Your task to perform on an android device: toggle data saver in the chrome app Image 0: 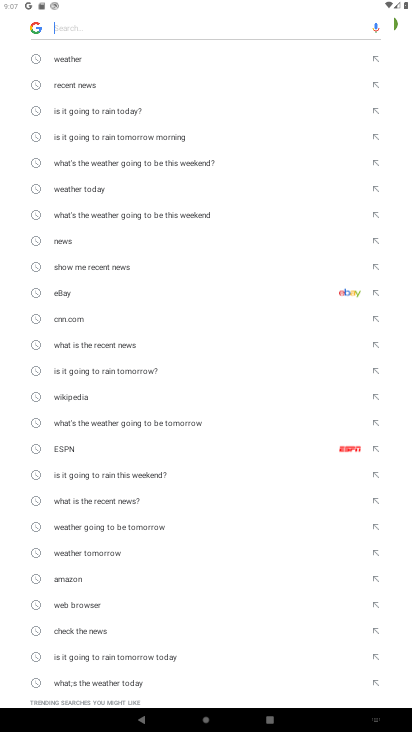
Step 0: press home button
Your task to perform on an android device: toggle data saver in the chrome app Image 1: 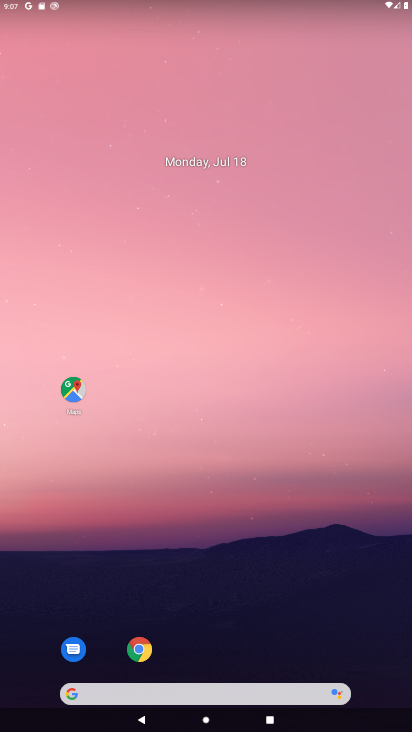
Step 1: click (140, 648)
Your task to perform on an android device: toggle data saver in the chrome app Image 2: 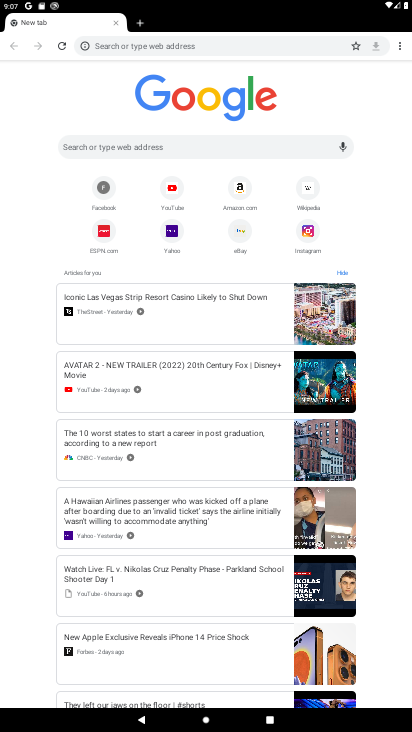
Step 2: click (393, 46)
Your task to perform on an android device: toggle data saver in the chrome app Image 3: 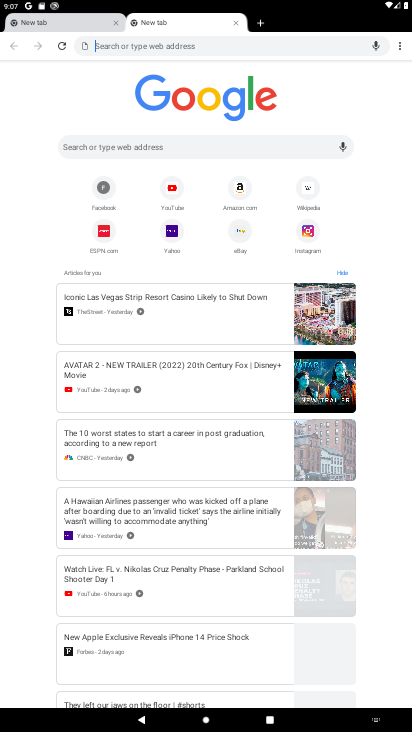
Step 3: click (405, 46)
Your task to perform on an android device: toggle data saver in the chrome app Image 4: 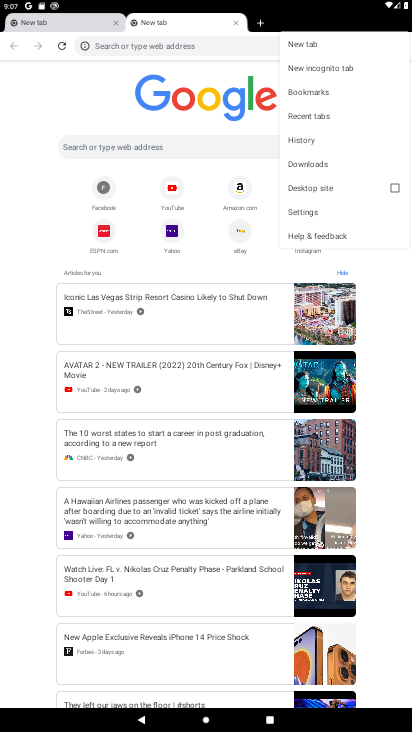
Step 4: click (316, 212)
Your task to perform on an android device: toggle data saver in the chrome app Image 5: 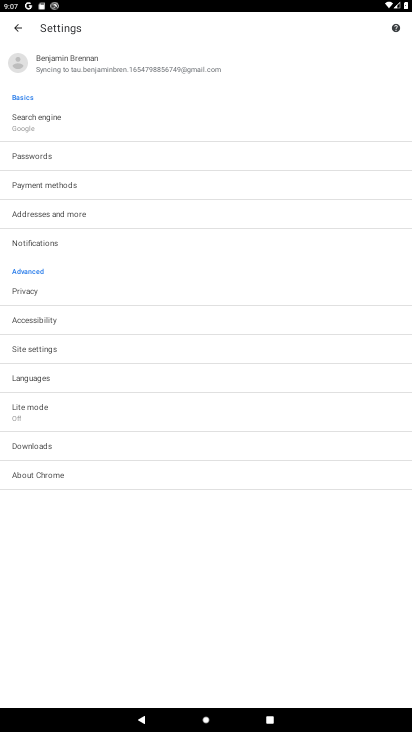
Step 5: click (25, 401)
Your task to perform on an android device: toggle data saver in the chrome app Image 6: 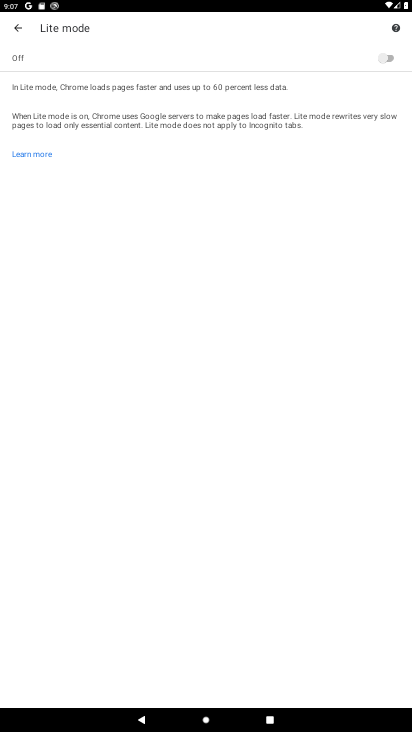
Step 6: click (389, 56)
Your task to perform on an android device: toggle data saver in the chrome app Image 7: 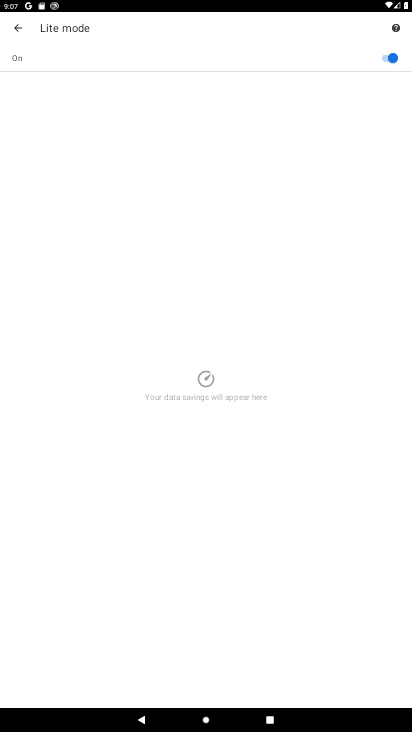
Step 7: task complete